Your task to perform on an android device: see tabs open on other devices in the chrome app Image 0: 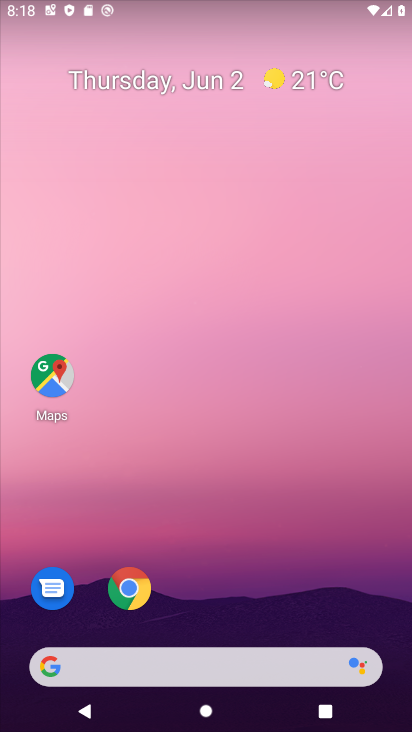
Step 0: click (144, 597)
Your task to perform on an android device: see tabs open on other devices in the chrome app Image 1: 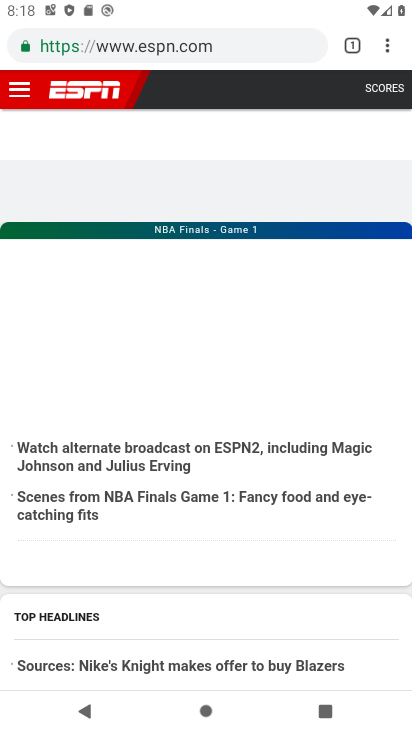
Step 1: task complete